Your task to perform on an android device: Search for vegetarian restaurants on Maps Image 0: 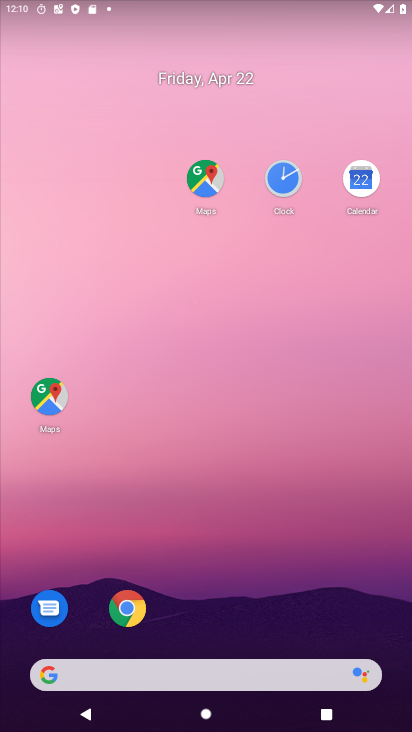
Step 0: drag from (244, 708) to (154, 24)
Your task to perform on an android device: Search for vegetarian restaurants on Maps Image 1: 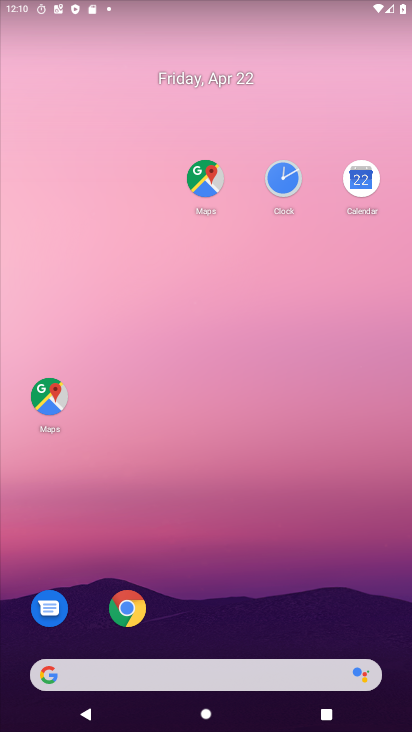
Step 1: drag from (236, 652) to (162, 93)
Your task to perform on an android device: Search for vegetarian restaurants on Maps Image 2: 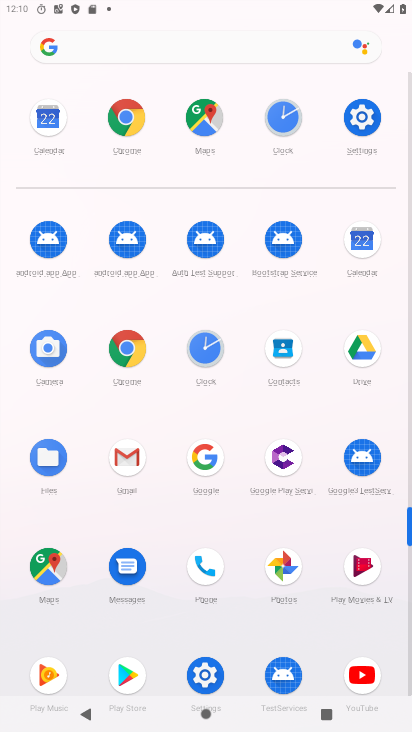
Step 2: click (200, 114)
Your task to perform on an android device: Search for vegetarian restaurants on Maps Image 3: 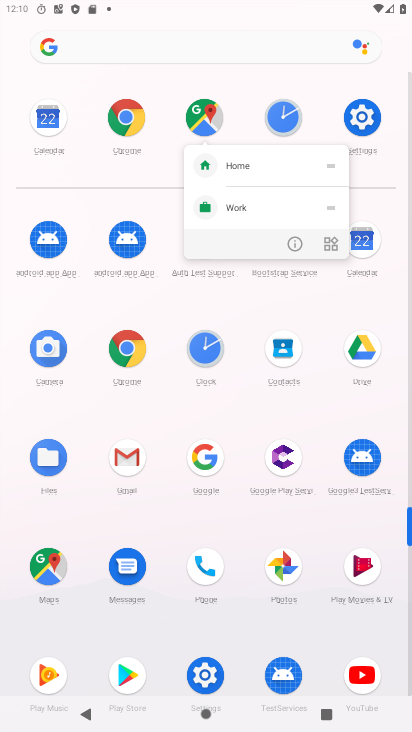
Step 3: click (202, 114)
Your task to perform on an android device: Search for vegetarian restaurants on Maps Image 4: 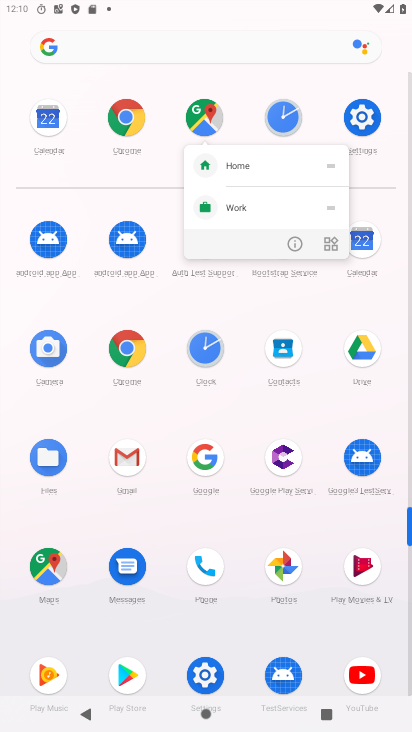
Step 4: click (202, 114)
Your task to perform on an android device: Search for vegetarian restaurants on Maps Image 5: 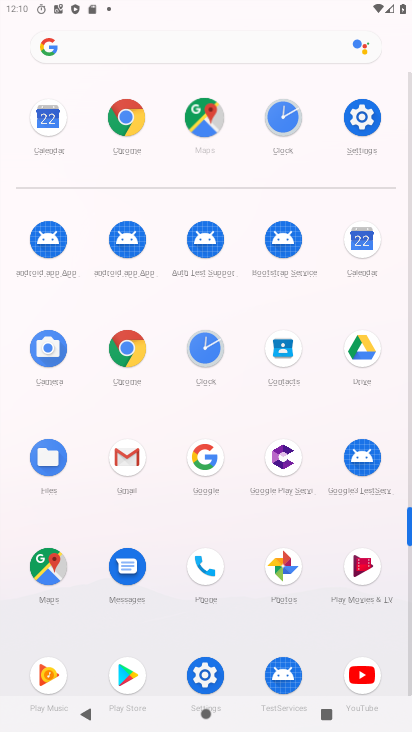
Step 5: click (202, 114)
Your task to perform on an android device: Search for vegetarian restaurants on Maps Image 6: 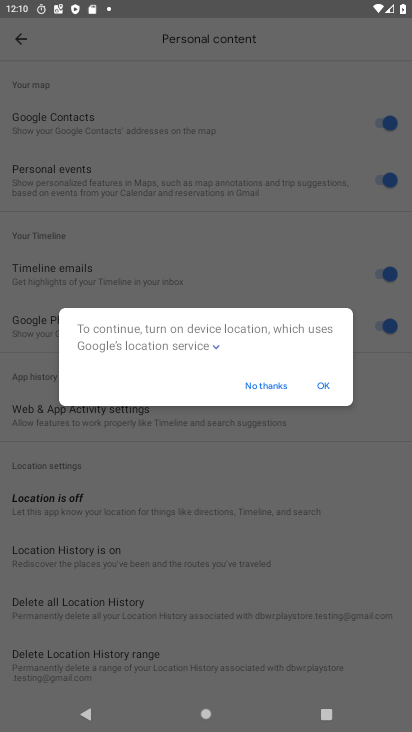
Step 6: click (322, 383)
Your task to perform on an android device: Search for vegetarian restaurants on Maps Image 7: 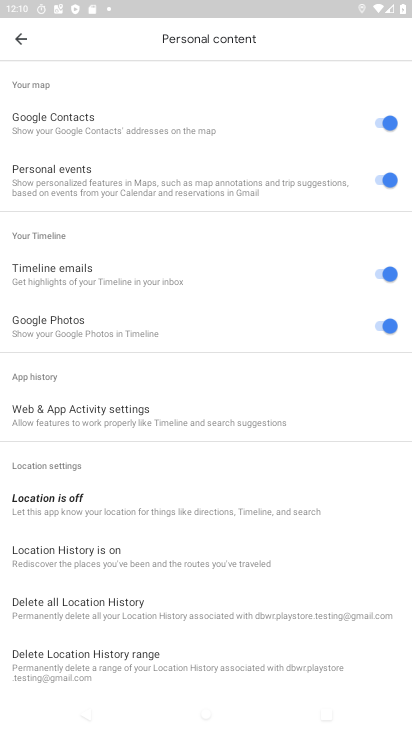
Step 7: click (25, 36)
Your task to perform on an android device: Search for vegetarian restaurants on Maps Image 8: 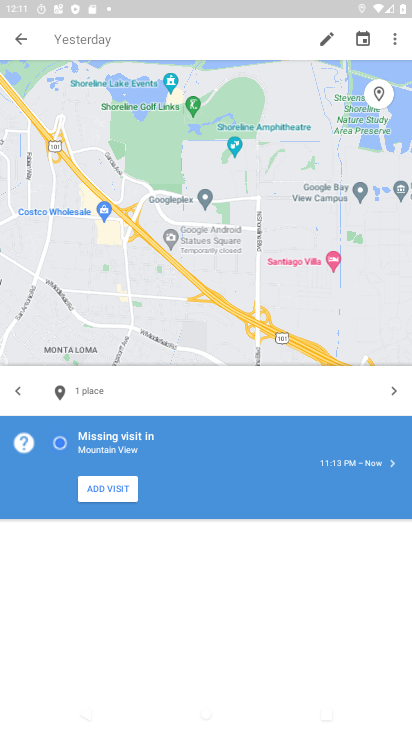
Step 8: click (19, 39)
Your task to perform on an android device: Search for vegetarian restaurants on Maps Image 9: 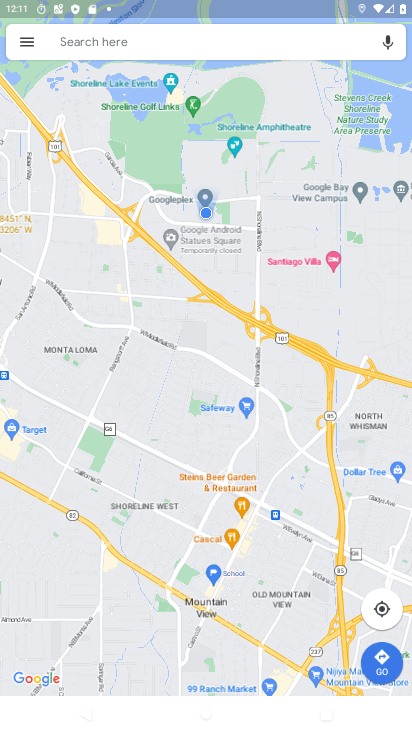
Step 9: click (69, 36)
Your task to perform on an android device: Search for vegetarian restaurants on Maps Image 10: 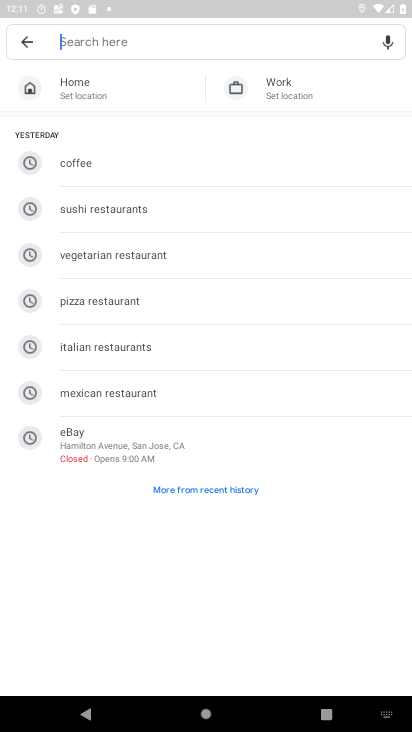
Step 10: click (120, 263)
Your task to perform on an android device: Search for vegetarian restaurants on Maps Image 11: 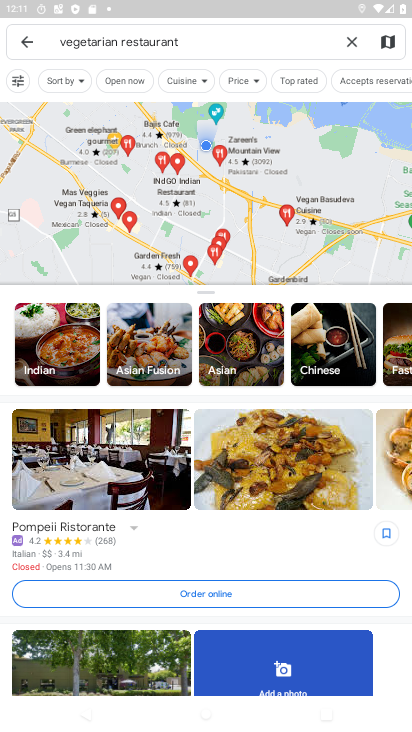
Step 11: task complete